Your task to perform on an android device: Open Youtube and go to the subscriptions tab Image 0: 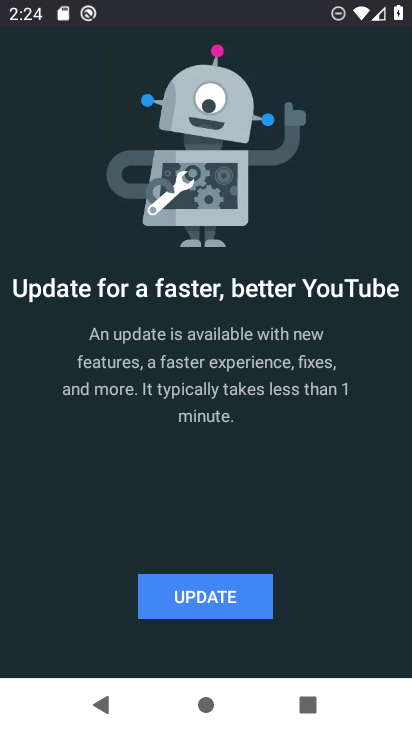
Step 0: press home button
Your task to perform on an android device: Open Youtube and go to the subscriptions tab Image 1: 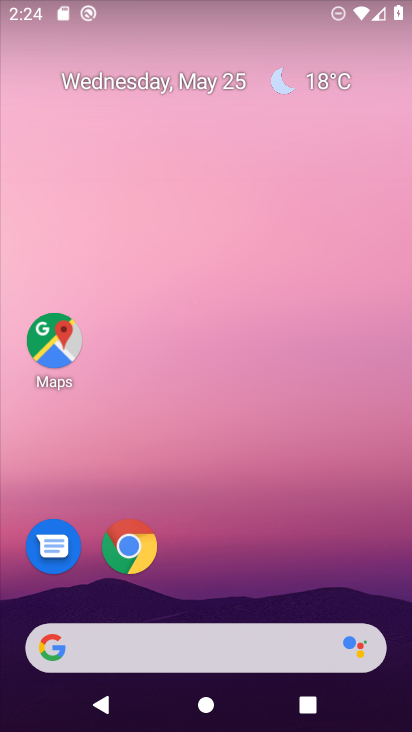
Step 1: drag from (187, 594) to (208, 263)
Your task to perform on an android device: Open Youtube and go to the subscriptions tab Image 2: 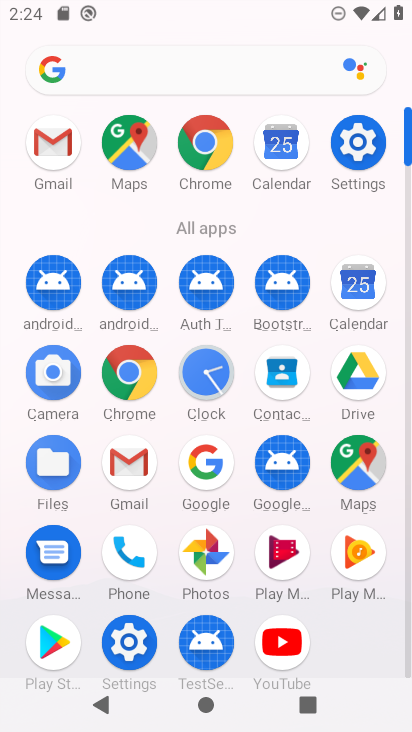
Step 2: click (289, 632)
Your task to perform on an android device: Open Youtube and go to the subscriptions tab Image 3: 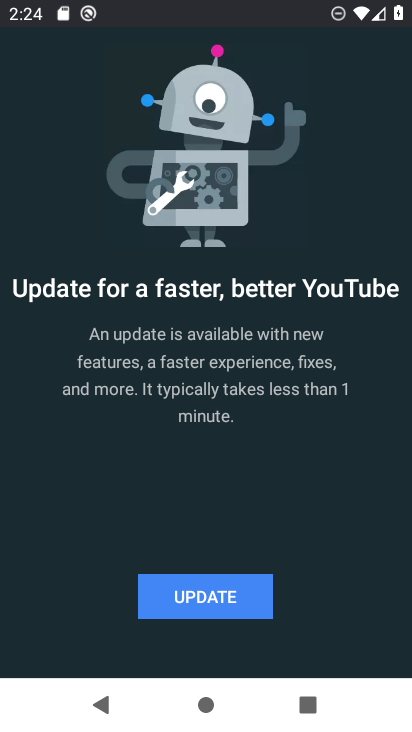
Step 3: click (232, 601)
Your task to perform on an android device: Open Youtube and go to the subscriptions tab Image 4: 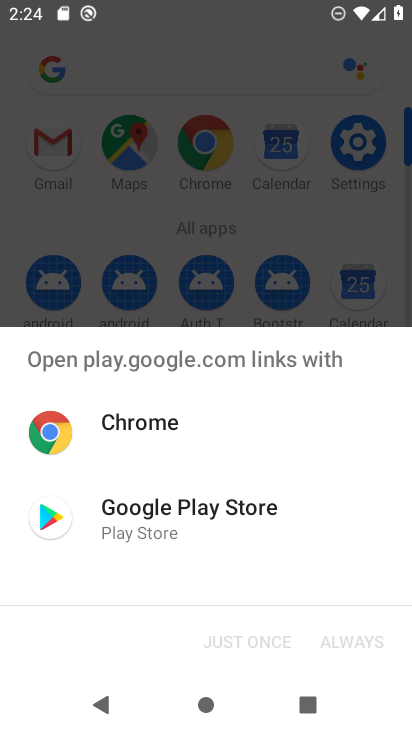
Step 4: click (185, 536)
Your task to perform on an android device: Open Youtube and go to the subscriptions tab Image 5: 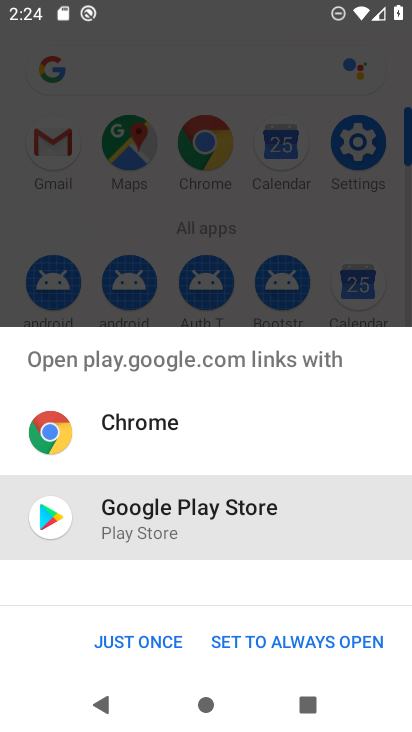
Step 5: click (147, 638)
Your task to perform on an android device: Open Youtube and go to the subscriptions tab Image 6: 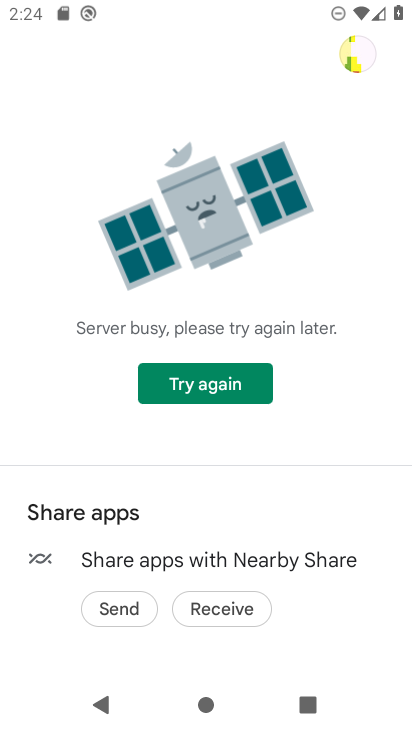
Step 6: click (242, 387)
Your task to perform on an android device: Open Youtube and go to the subscriptions tab Image 7: 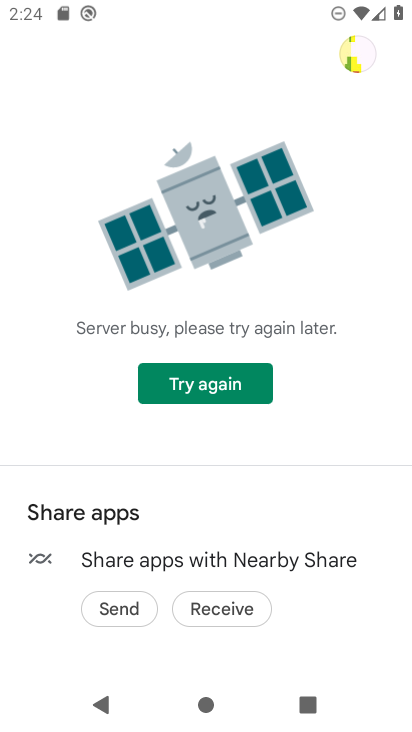
Step 7: click (241, 387)
Your task to perform on an android device: Open Youtube and go to the subscriptions tab Image 8: 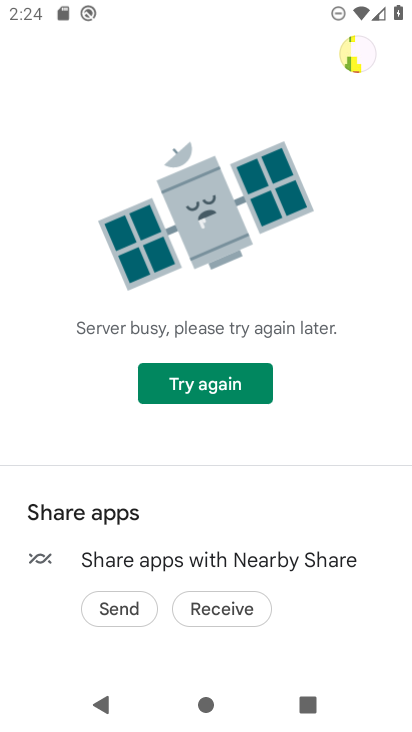
Step 8: task complete